Your task to perform on an android device: Open Reddit.com Image 0: 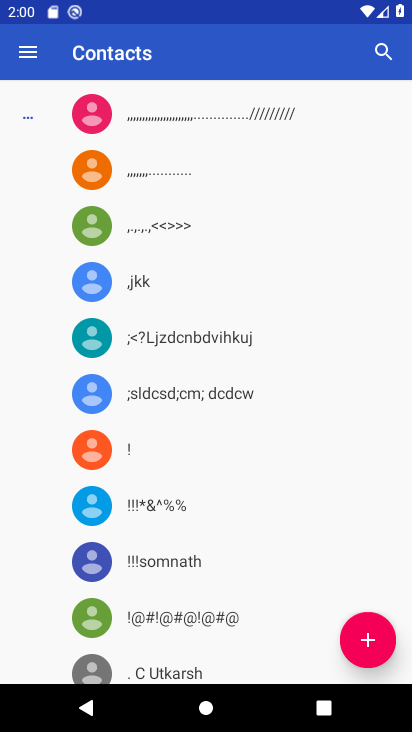
Step 0: press home button
Your task to perform on an android device: Open Reddit.com Image 1: 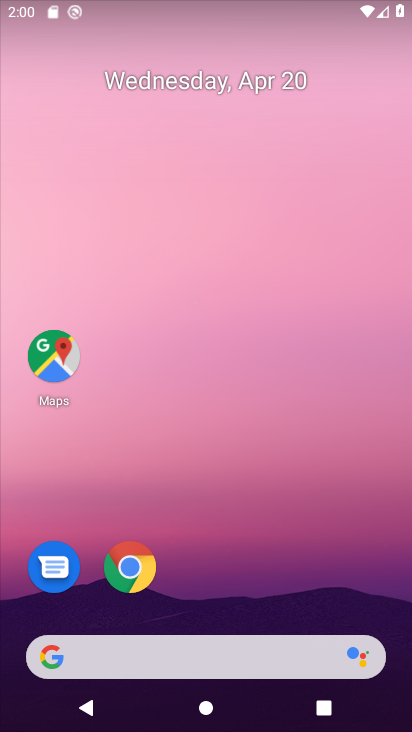
Step 1: click (129, 567)
Your task to perform on an android device: Open Reddit.com Image 2: 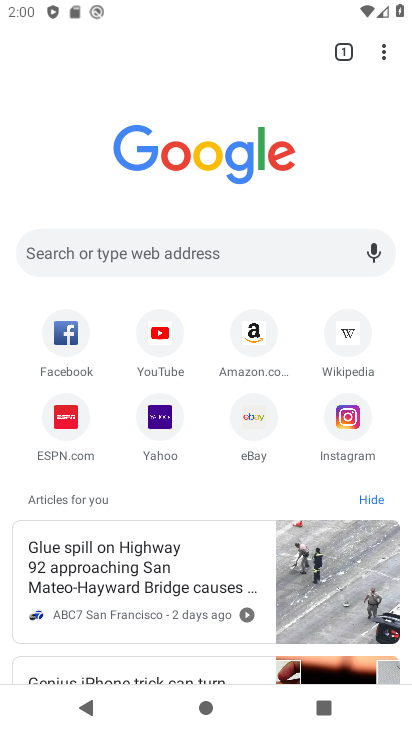
Step 2: click (172, 244)
Your task to perform on an android device: Open Reddit.com Image 3: 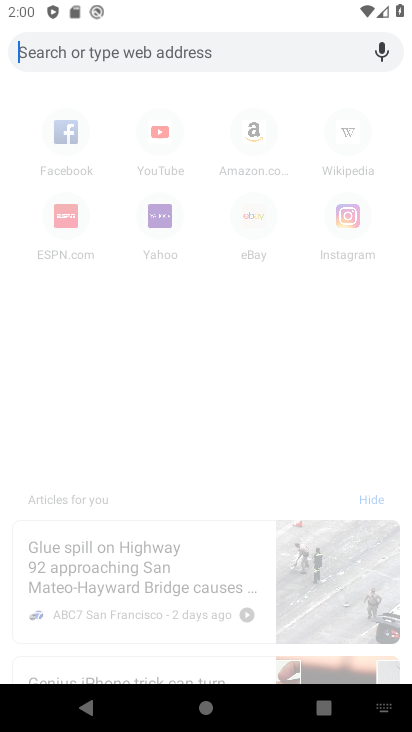
Step 3: type "reddit.com"
Your task to perform on an android device: Open Reddit.com Image 4: 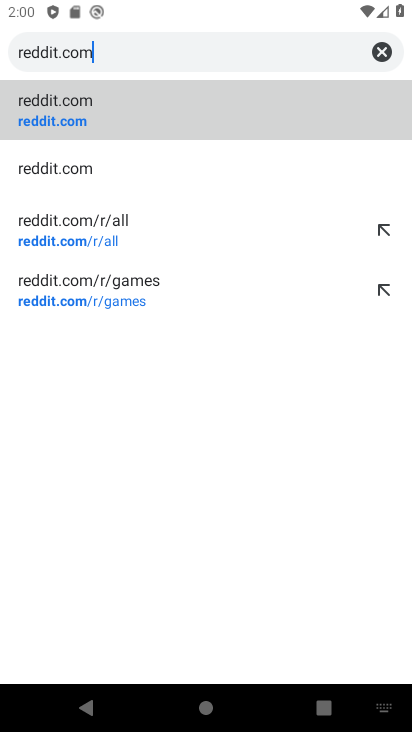
Step 4: click (135, 94)
Your task to perform on an android device: Open Reddit.com Image 5: 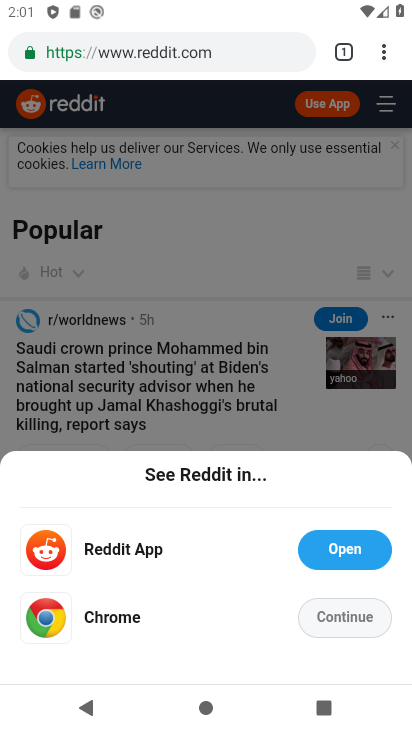
Step 5: task complete